Your task to perform on an android device: Set an alarm for 4pm Image 0: 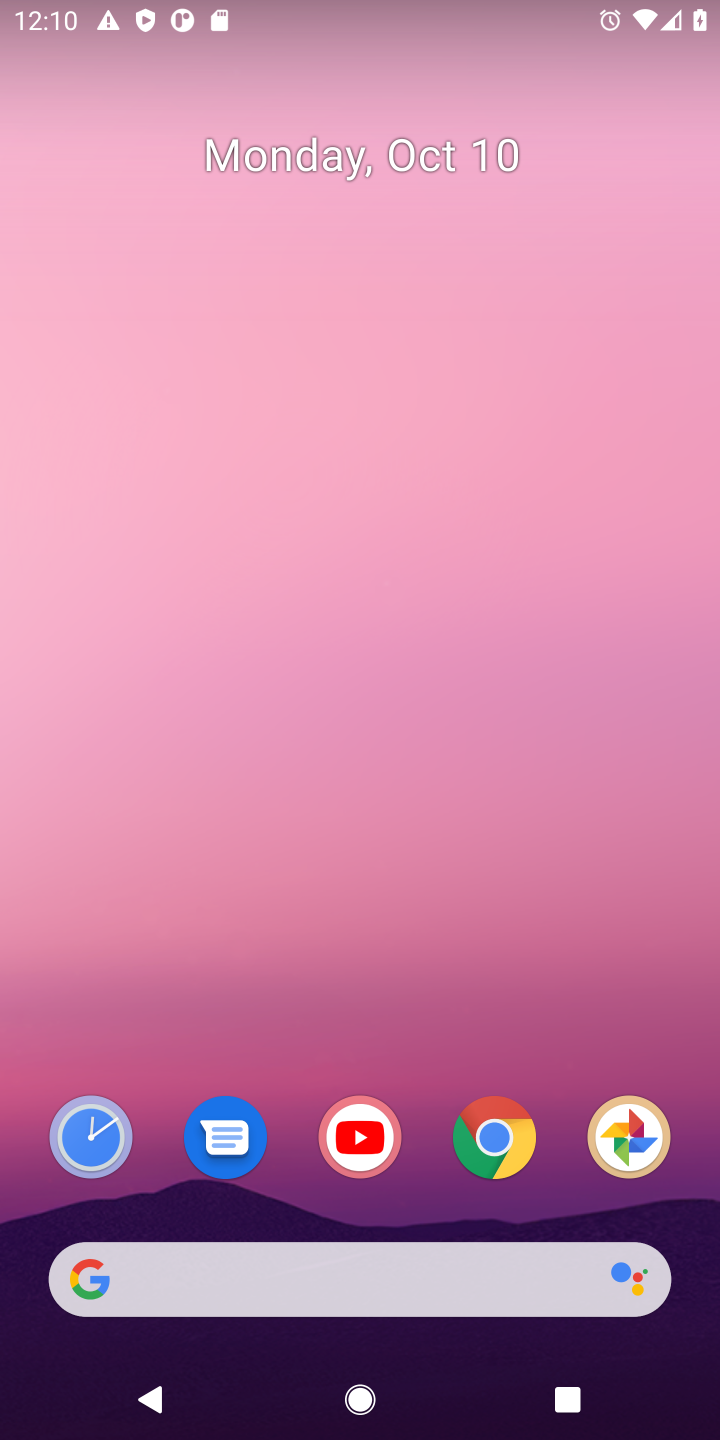
Step 0: drag from (404, 885) to (383, 116)
Your task to perform on an android device: Set an alarm for 4pm Image 1: 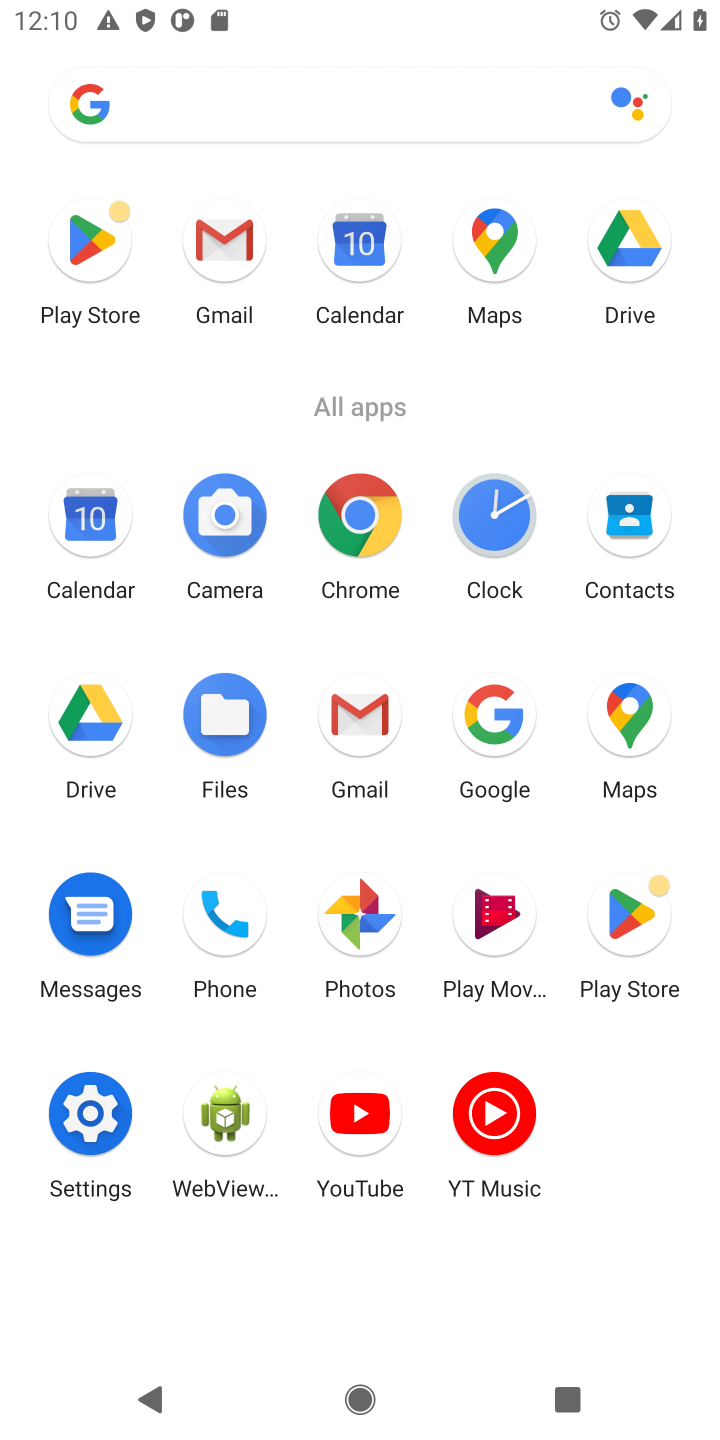
Step 1: click (497, 533)
Your task to perform on an android device: Set an alarm for 4pm Image 2: 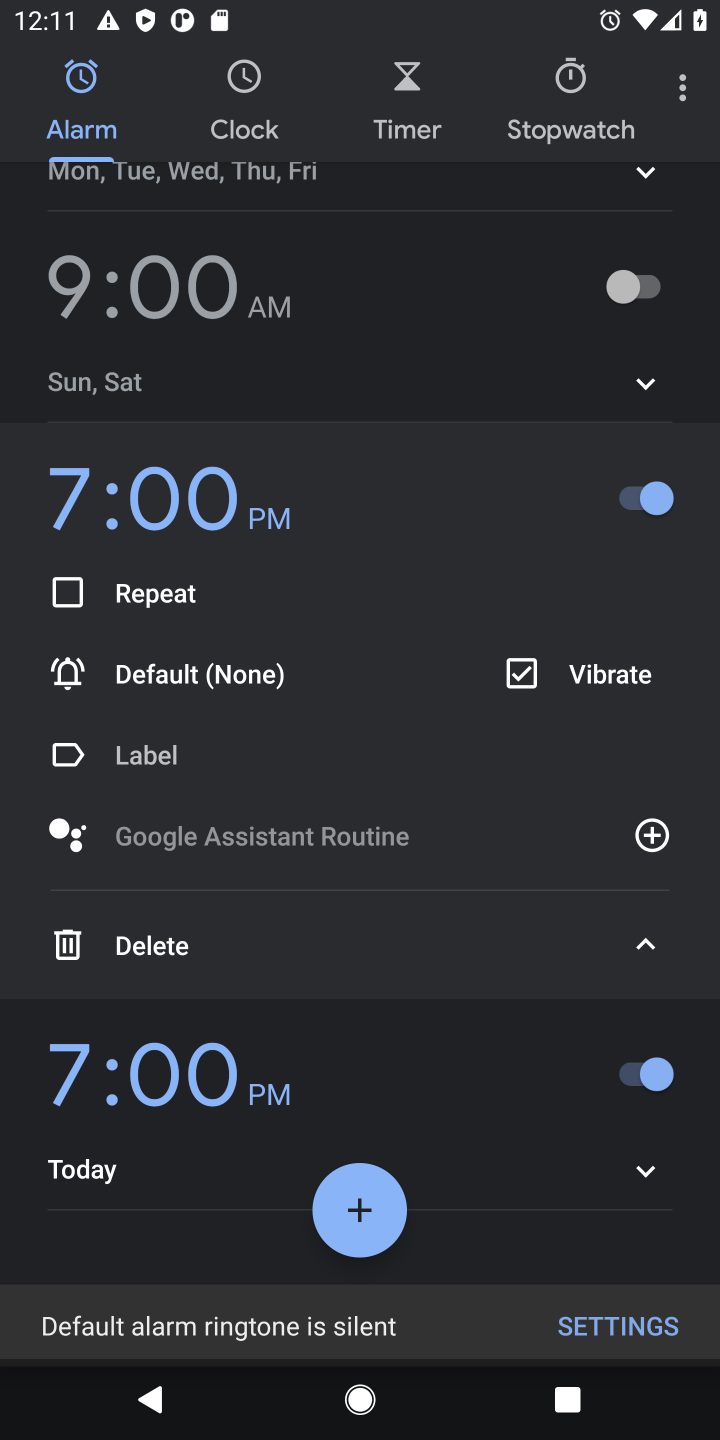
Step 2: click (378, 1217)
Your task to perform on an android device: Set an alarm for 4pm Image 3: 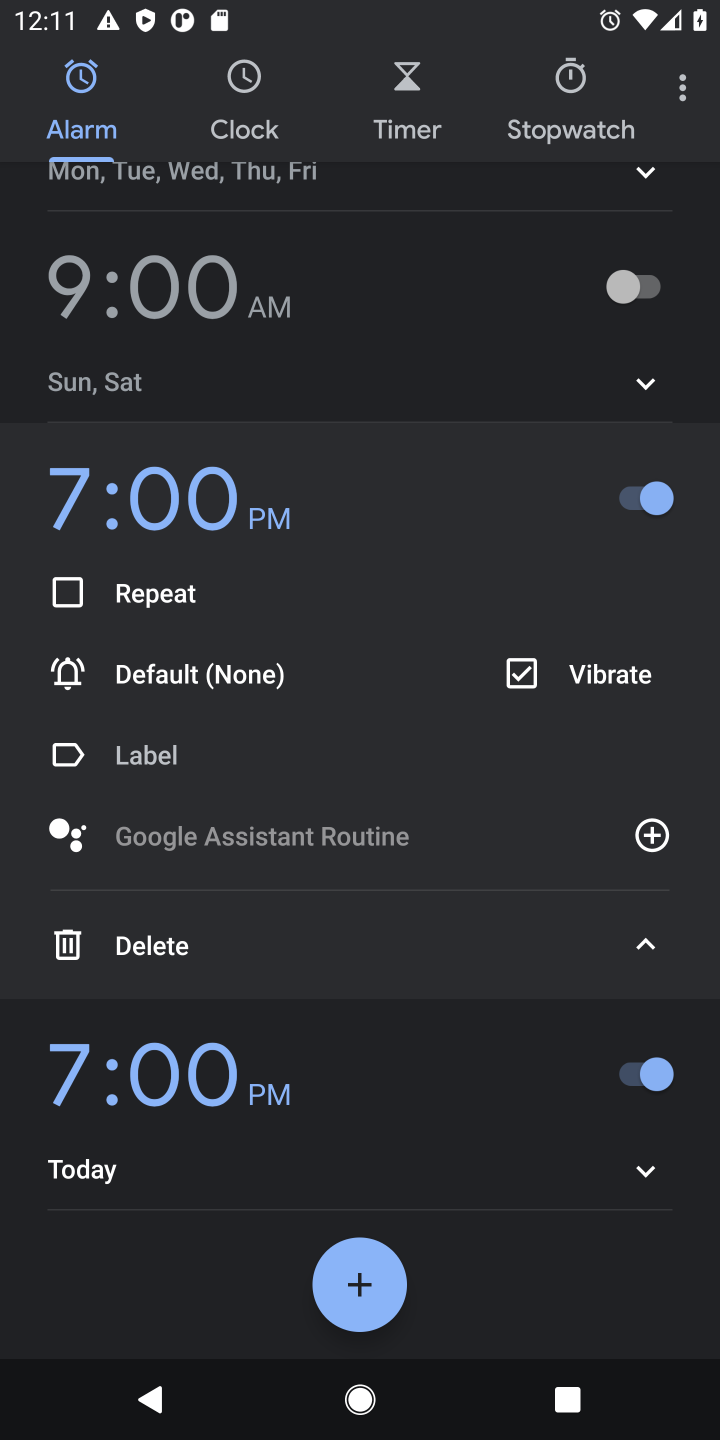
Step 3: click (359, 1270)
Your task to perform on an android device: Set an alarm for 4pm Image 4: 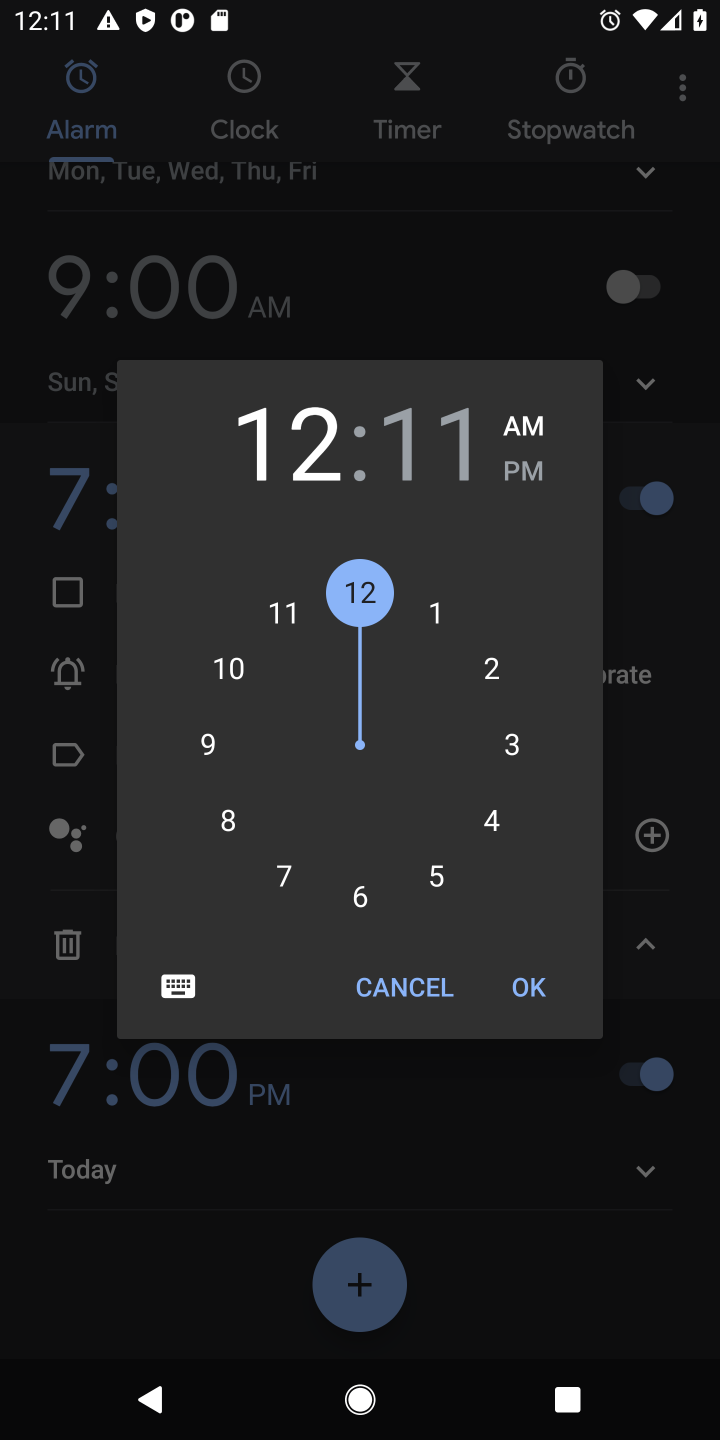
Step 4: click (499, 822)
Your task to perform on an android device: Set an alarm for 4pm Image 5: 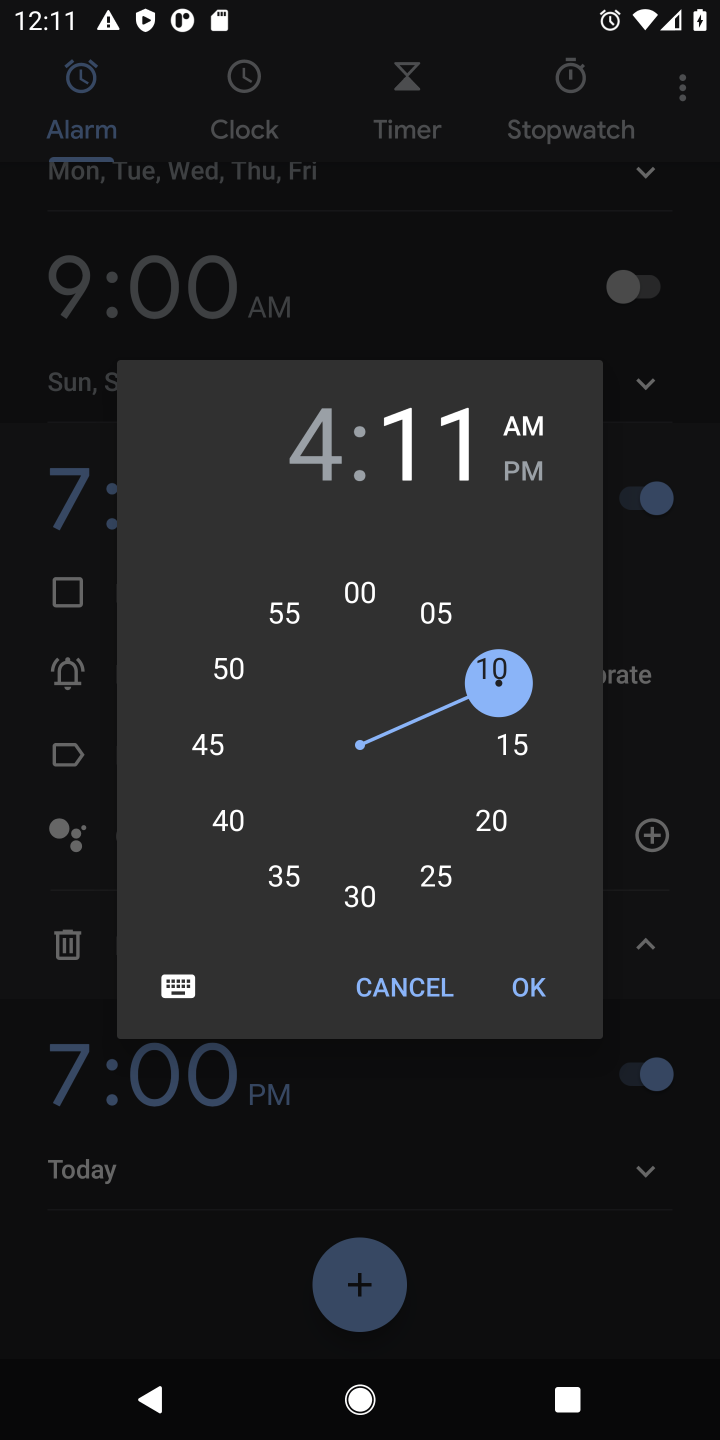
Step 5: click (364, 585)
Your task to perform on an android device: Set an alarm for 4pm Image 6: 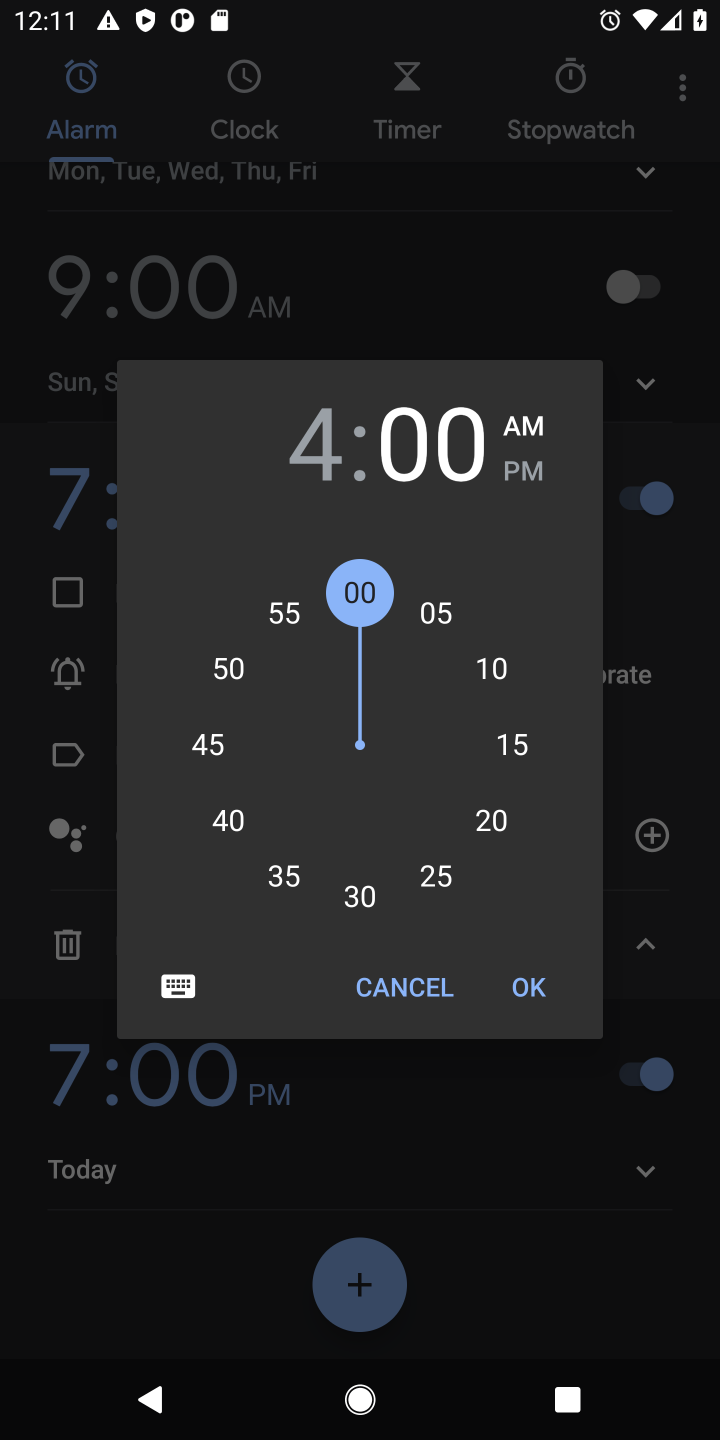
Step 6: click (528, 470)
Your task to perform on an android device: Set an alarm for 4pm Image 7: 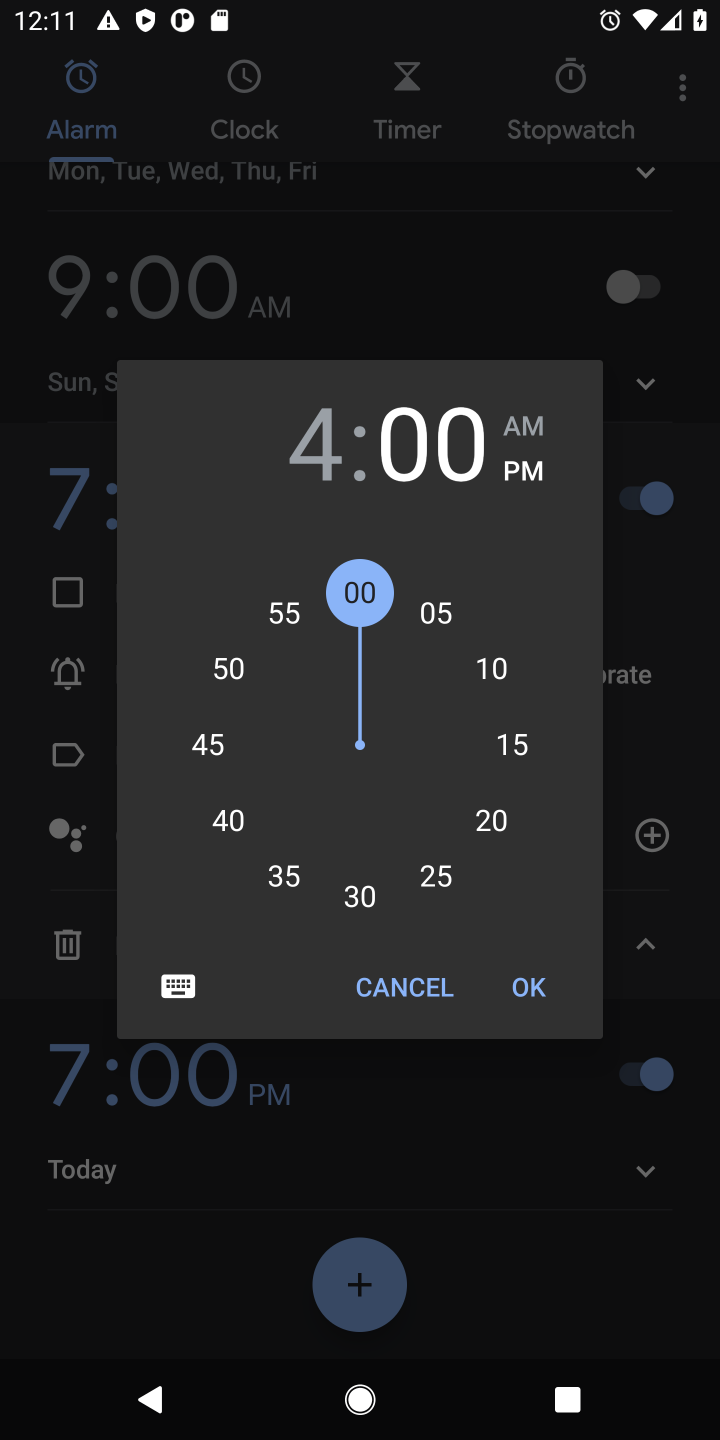
Step 7: click (523, 979)
Your task to perform on an android device: Set an alarm for 4pm Image 8: 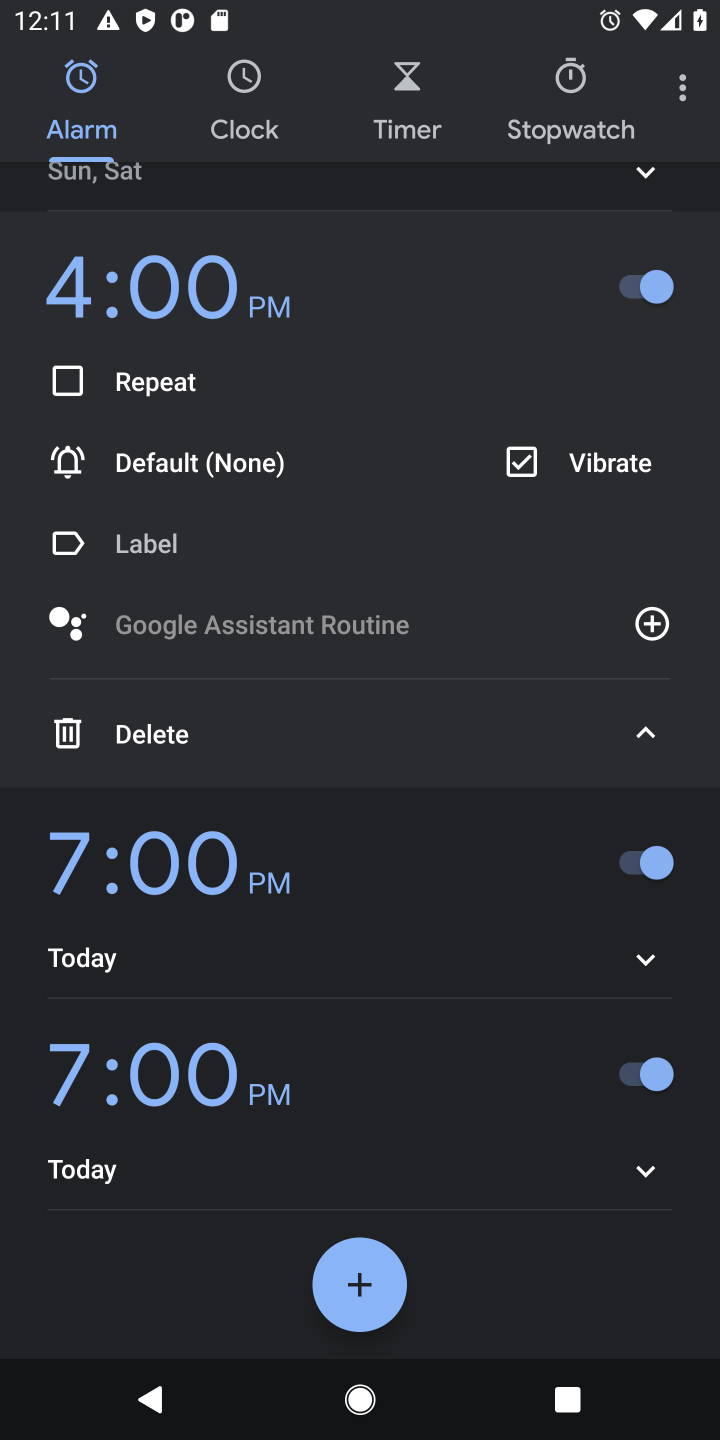
Step 8: task complete